Your task to perform on an android device: turn on airplane mode Image 0: 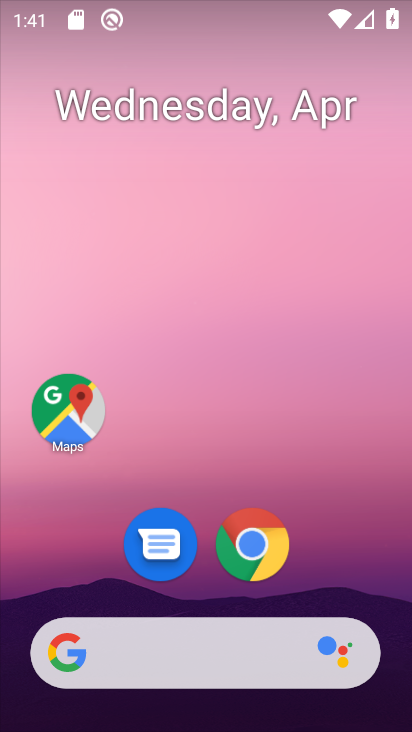
Step 0: drag from (174, 609) to (298, 52)
Your task to perform on an android device: turn on airplane mode Image 1: 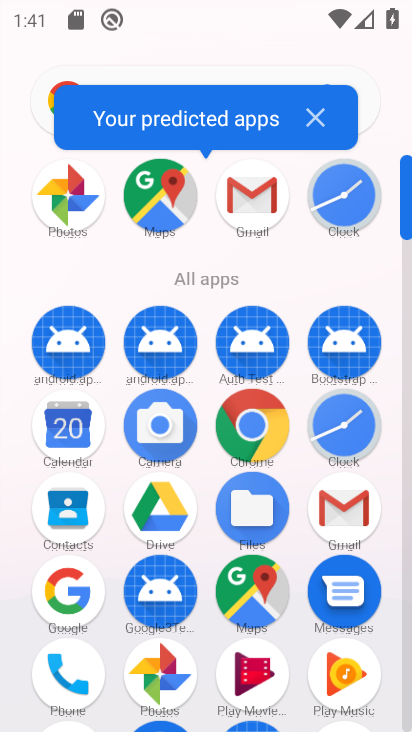
Step 1: drag from (367, 562) to (396, 303)
Your task to perform on an android device: turn on airplane mode Image 2: 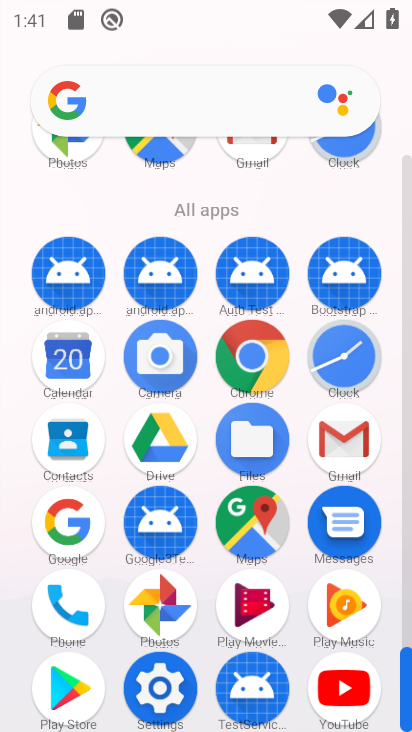
Step 2: click (151, 691)
Your task to perform on an android device: turn on airplane mode Image 3: 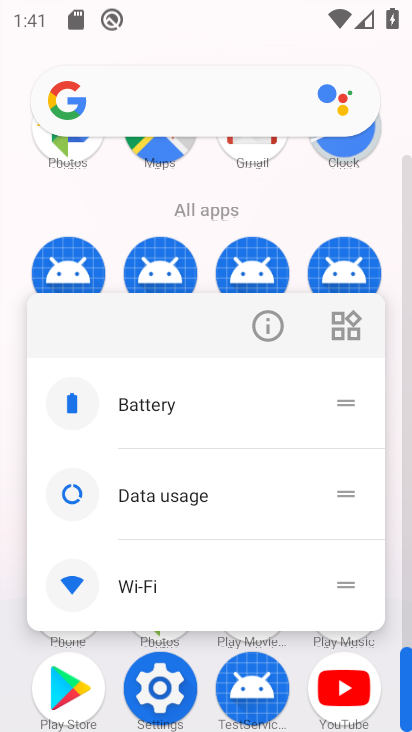
Step 3: click (153, 688)
Your task to perform on an android device: turn on airplane mode Image 4: 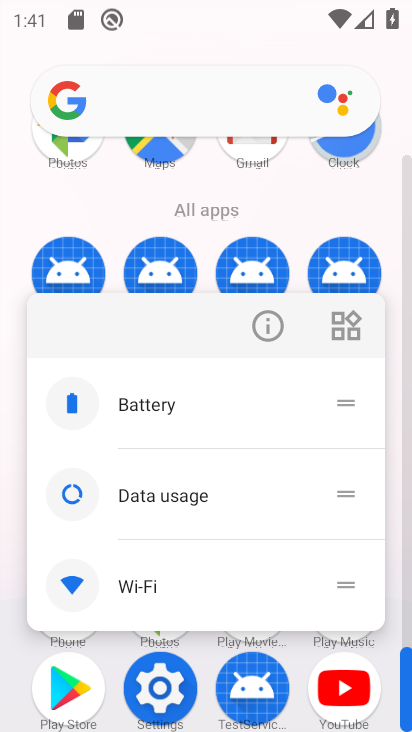
Step 4: click (155, 686)
Your task to perform on an android device: turn on airplane mode Image 5: 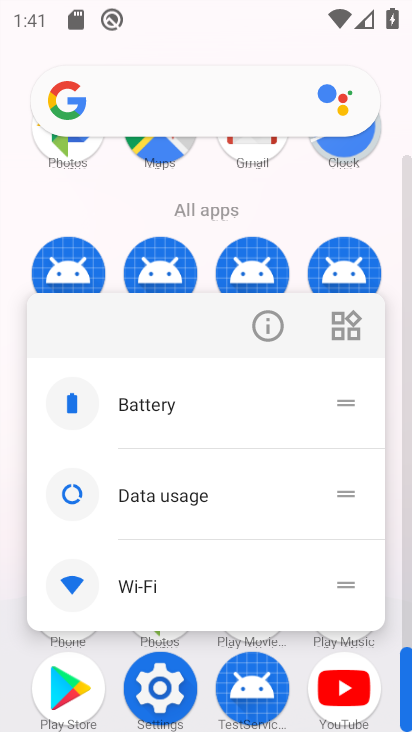
Step 5: click (160, 697)
Your task to perform on an android device: turn on airplane mode Image 6: 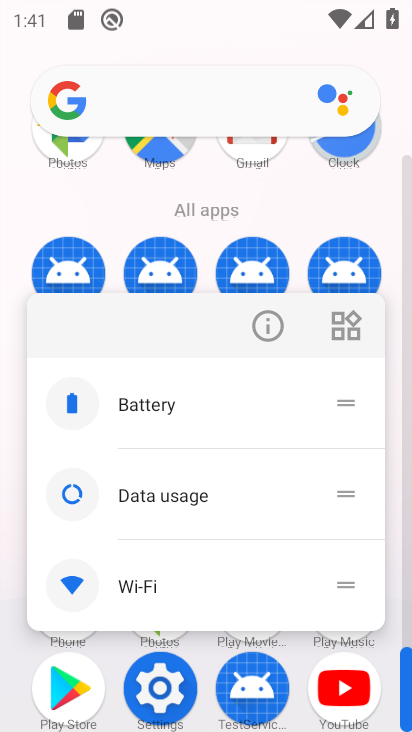
Step 6: click (165, 691)
Your task to perform on an android device: turn on airplane mode Image 7: 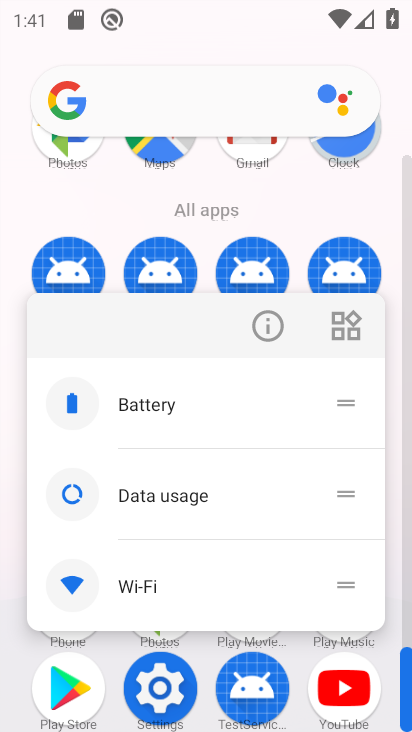
Step 7: click (159, 686)
Your task to perform on an android device: turn on airplane mode Image 8: 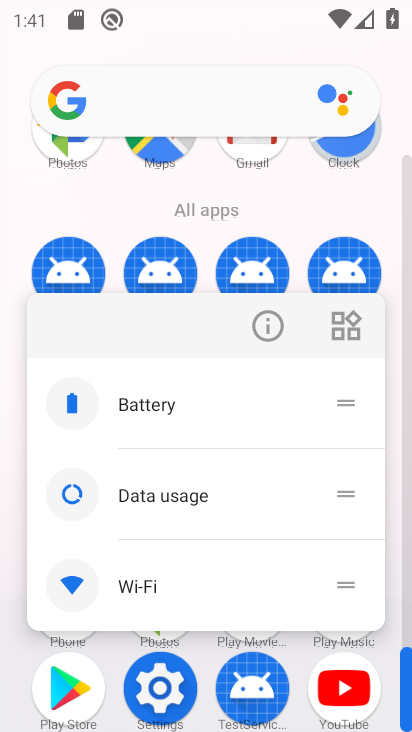
Step 8: click (164, 686)
Your task to perform on an android device: turn on airplane mode Image 9: 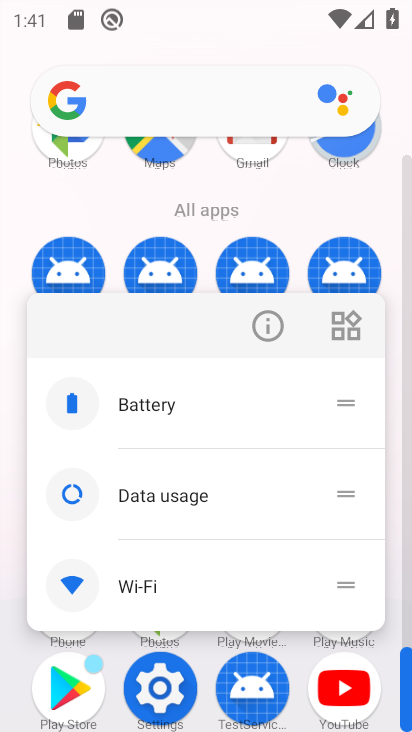
Step 9: click (166, 701)
Your task to perform on an android device: turn on airplane mode Image 10: 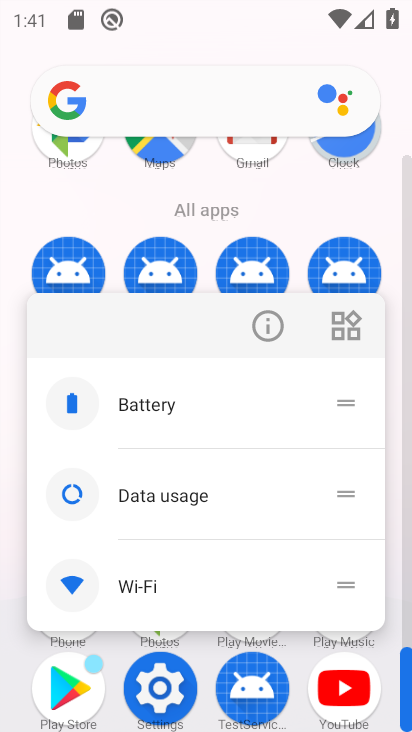
Step 10: click (165, 693)
Your task to perform on an android device: turn on airplane mode Image 11: 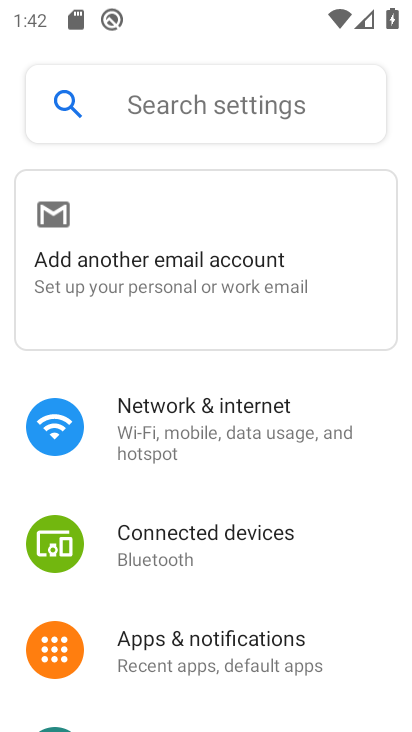
Step 11: click (260, 445)
Your task to perform on an android device: turn on airplane mode Image 12: 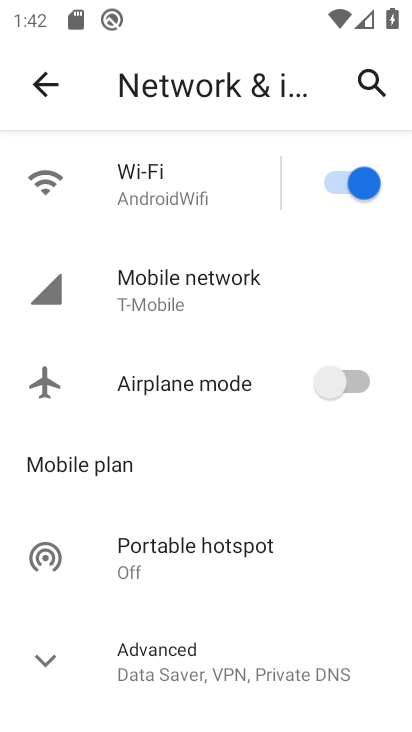
Step 12: click (356, 376)
Your task to perform on an android device: turn on airplane mode Image 13: 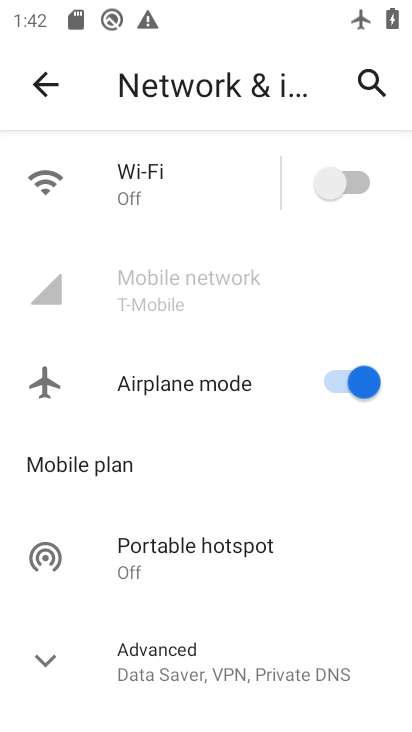
Step 13: task complete